Your task to perform on an android device: Do I have any events tomorrow? Image 0: 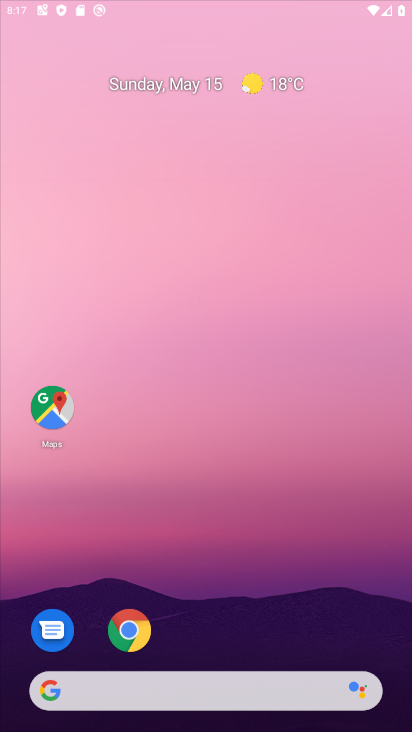
Step 0: click (200, 539)
Your task to perform on an android device: Do I have any events tomorrow? Image 1: 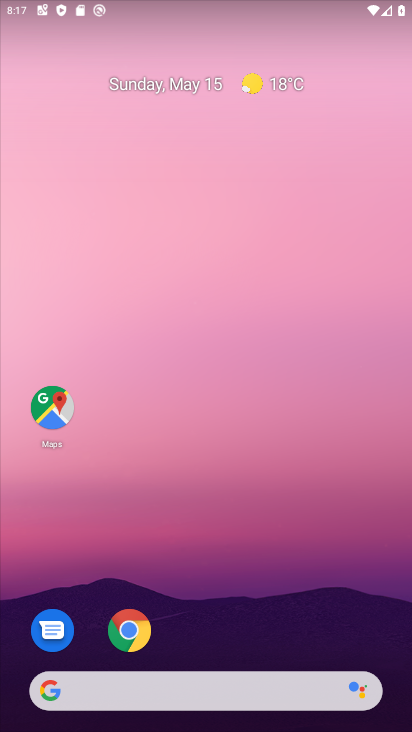
Step 1: drag from (198, 613) to (240, 42)
Your task to perform on an android device: Do I have any events tomorrow? Image 2: 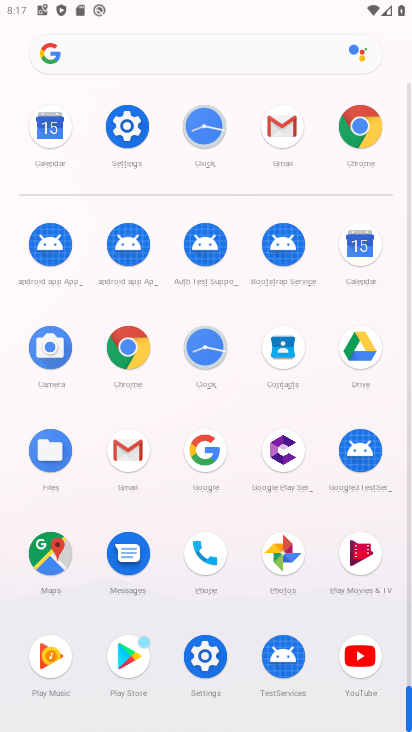
Step 2: click (354, 235)
Your task to perform on an android device: Do I have any events tomorrow? Image 3: 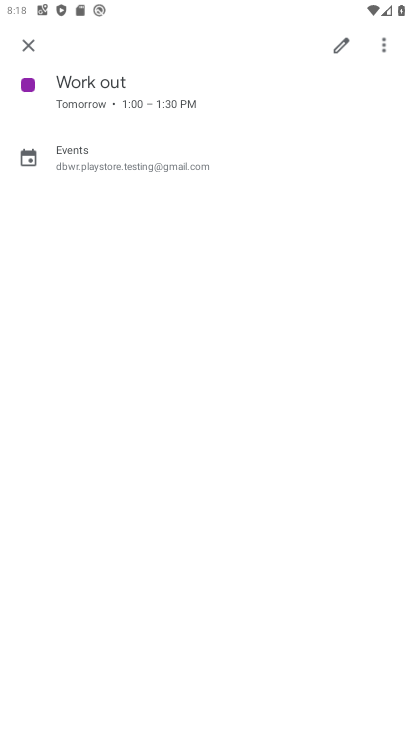
Step 3: click (24, 44)
Your task to perform on an android device: Do I have any events tomorrow? Image 4: 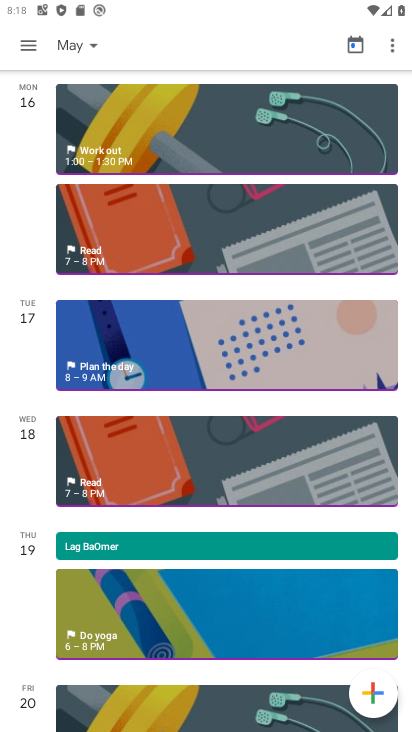
Step 4: click (94, 43)
Your task to perform on an android device: Do I have any events tomorrow? Image 5: 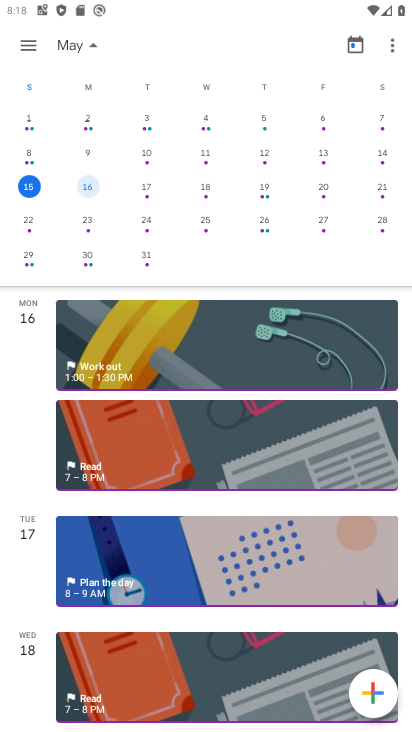
Step 5: click (82, 187)
Your task to perform on an android device: Do I have any events tomorrow? Image 6: 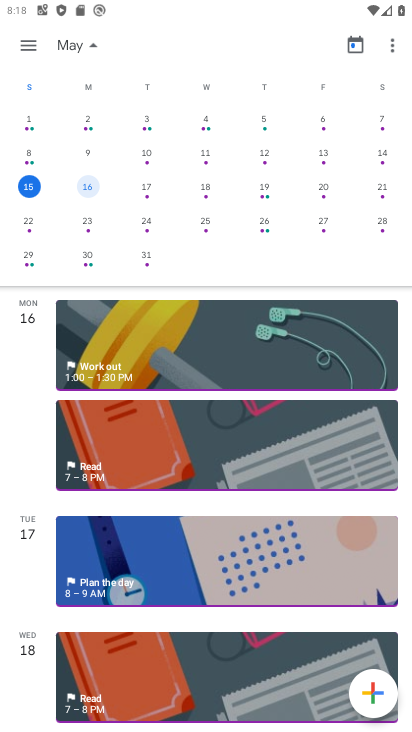
Step 6: task complete